Your task to perform on an android device: Search for seafood restaurants on Google Maps Image 0: 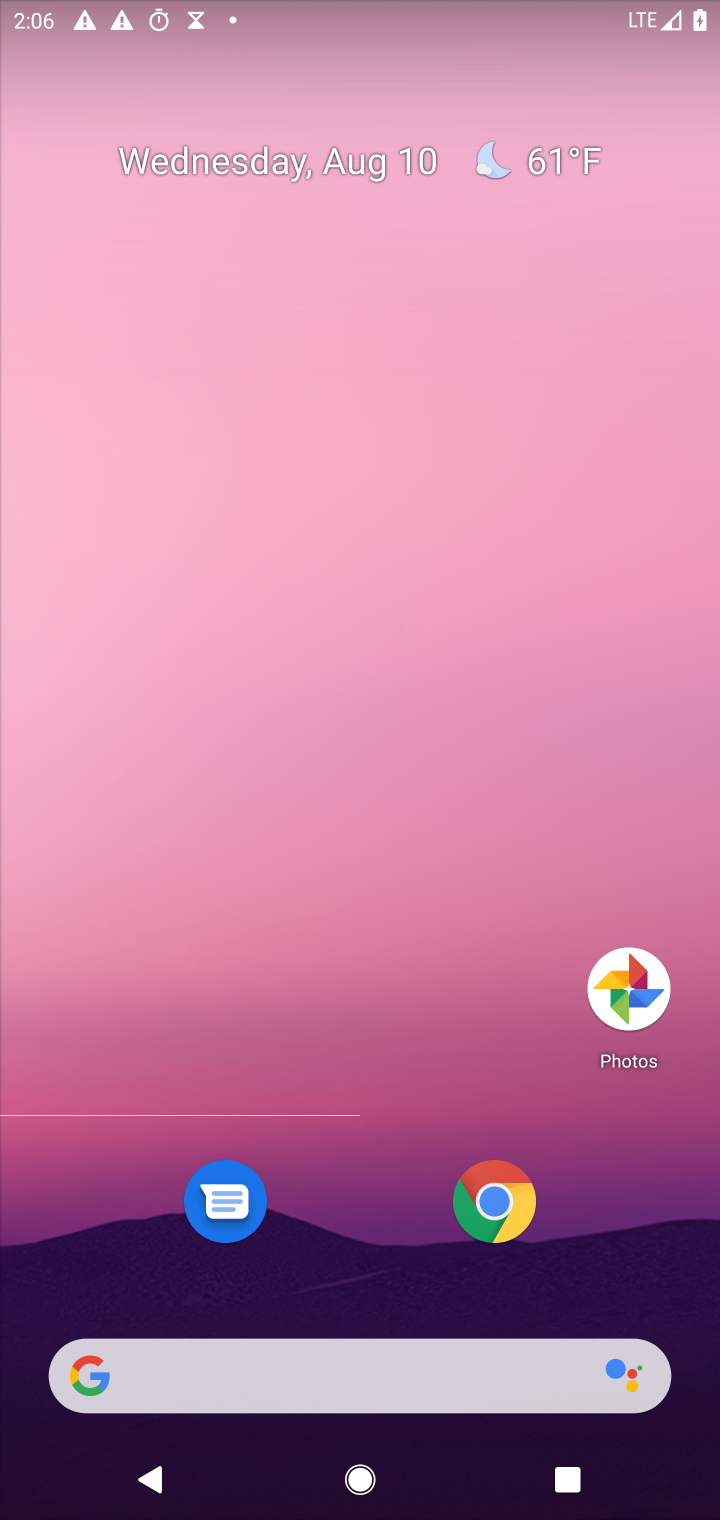
Step 0: press home button
Your task to perform on an android device: Search for seafood restaurants on Google Maps Image 1: 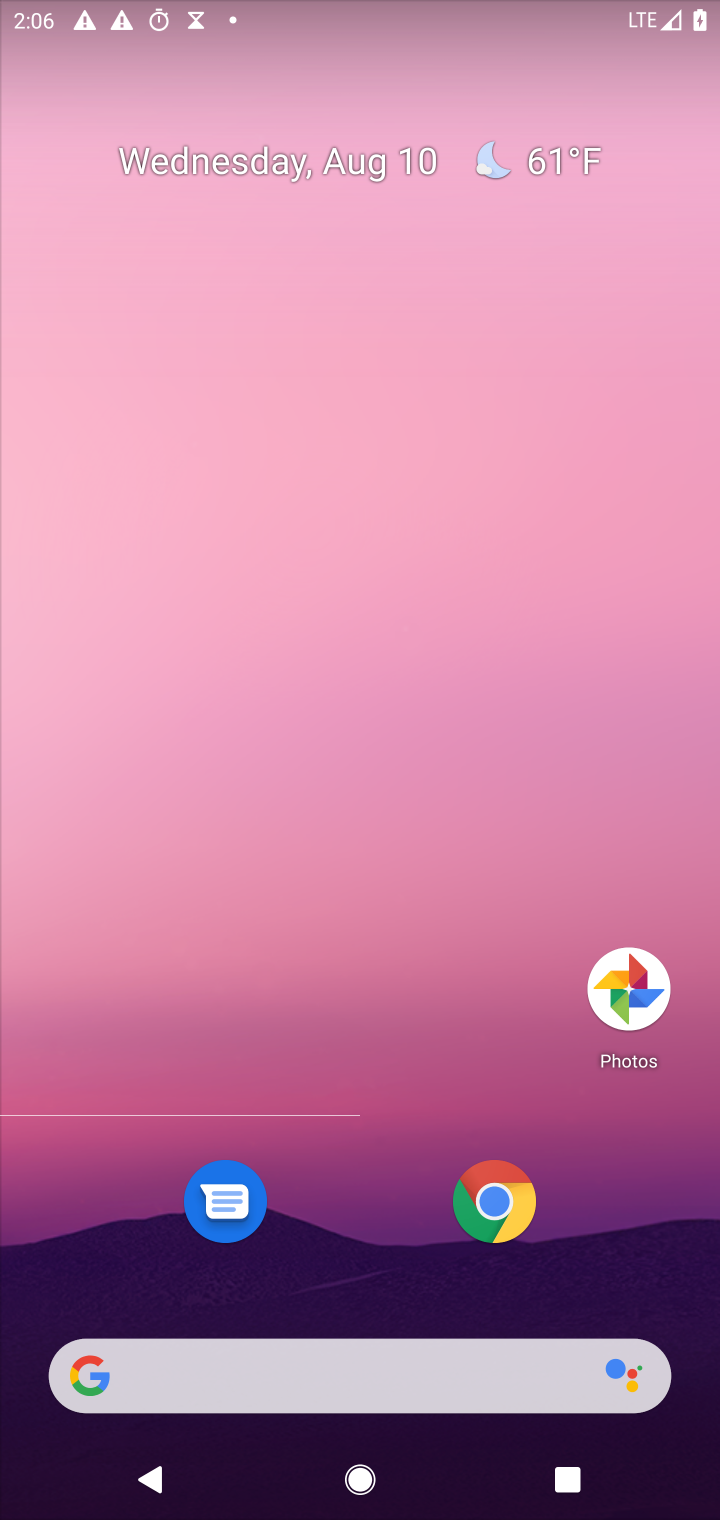
Step 1: drag from (393, 1290) to (498, 102)
Your task to perform on an android device: Search for seafood restaurants on Google Maps Image 2: 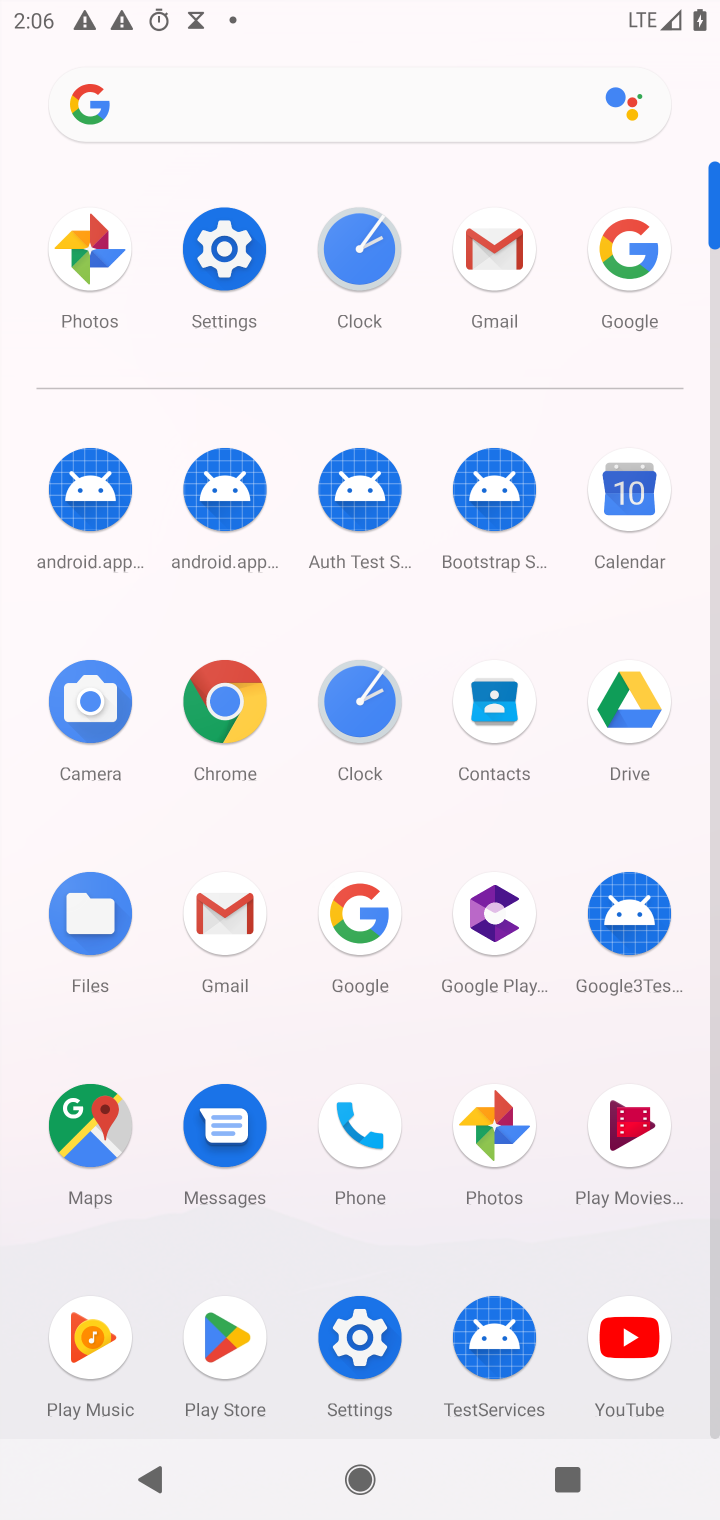
Step 2: click (82, 1127)
Your task to perform on an android device: Search for seafood restaurants on Google Maps Image 3: 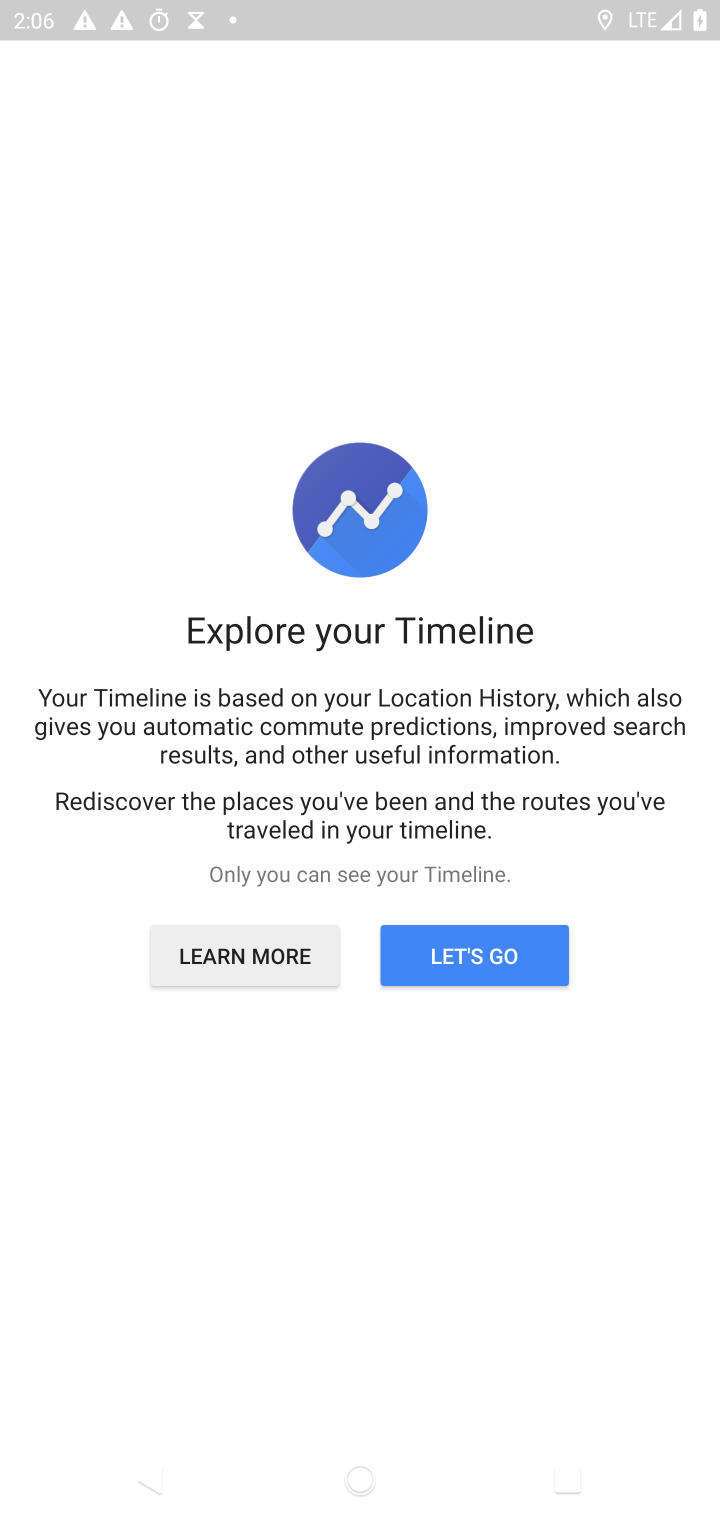
Step 3: click (455, 955)
Your task to perform on an android device: Search for seafood restaurants on Google Maps Image 4: 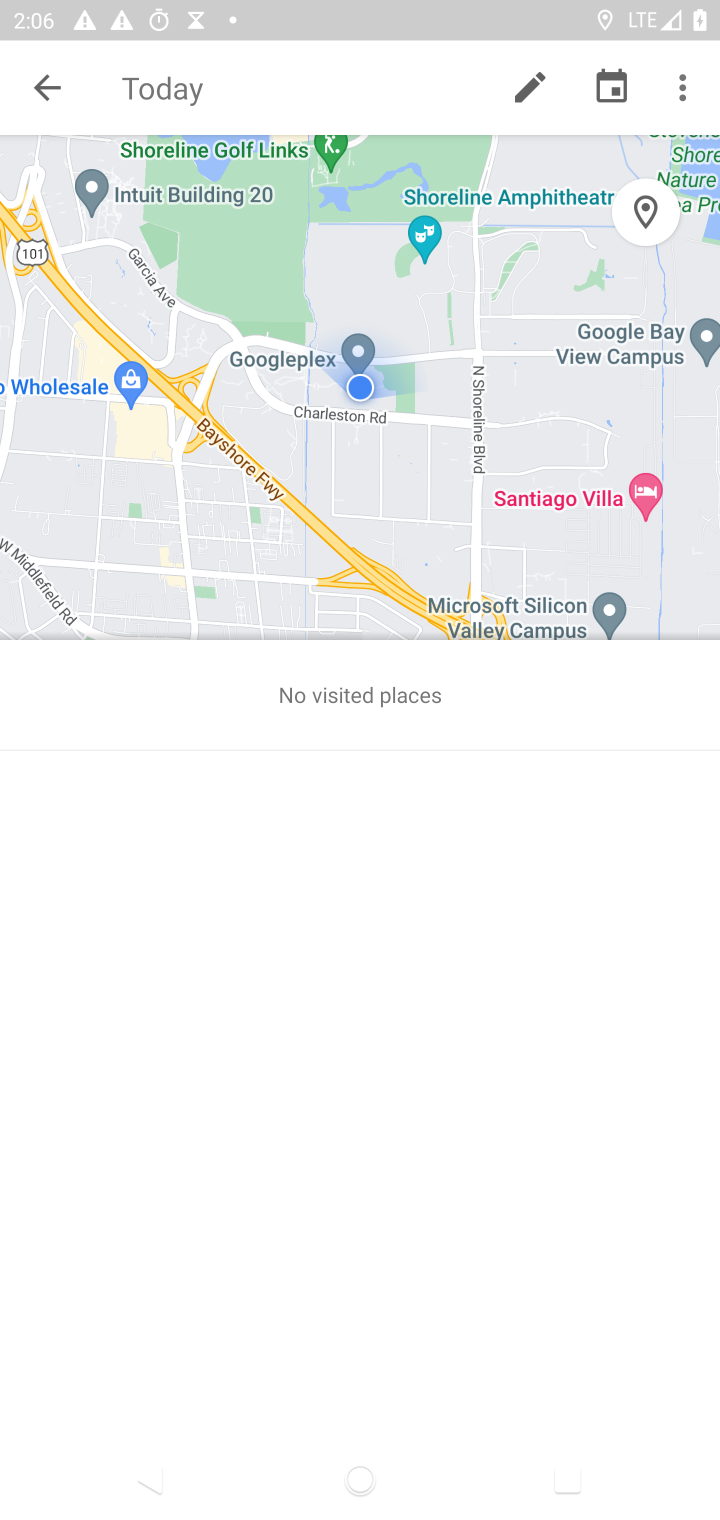
Step 4: click (44, 100)
Your task to perform on an android device: Search for seafood restaurants on Google Maps Image 5: 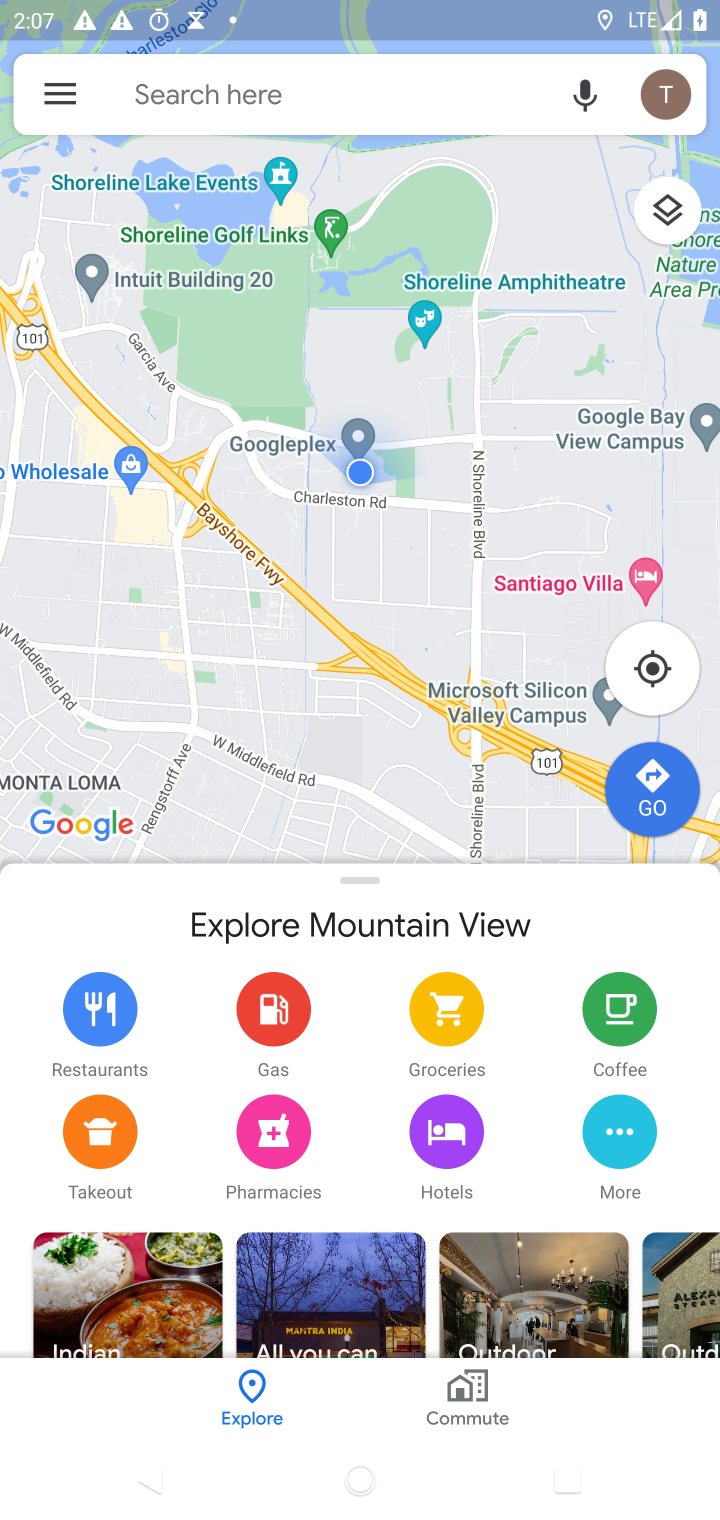
Step 5: click (252, 99)
Your task to perform on an android device: Search for seafood restaurants on Google Maps Image 6: 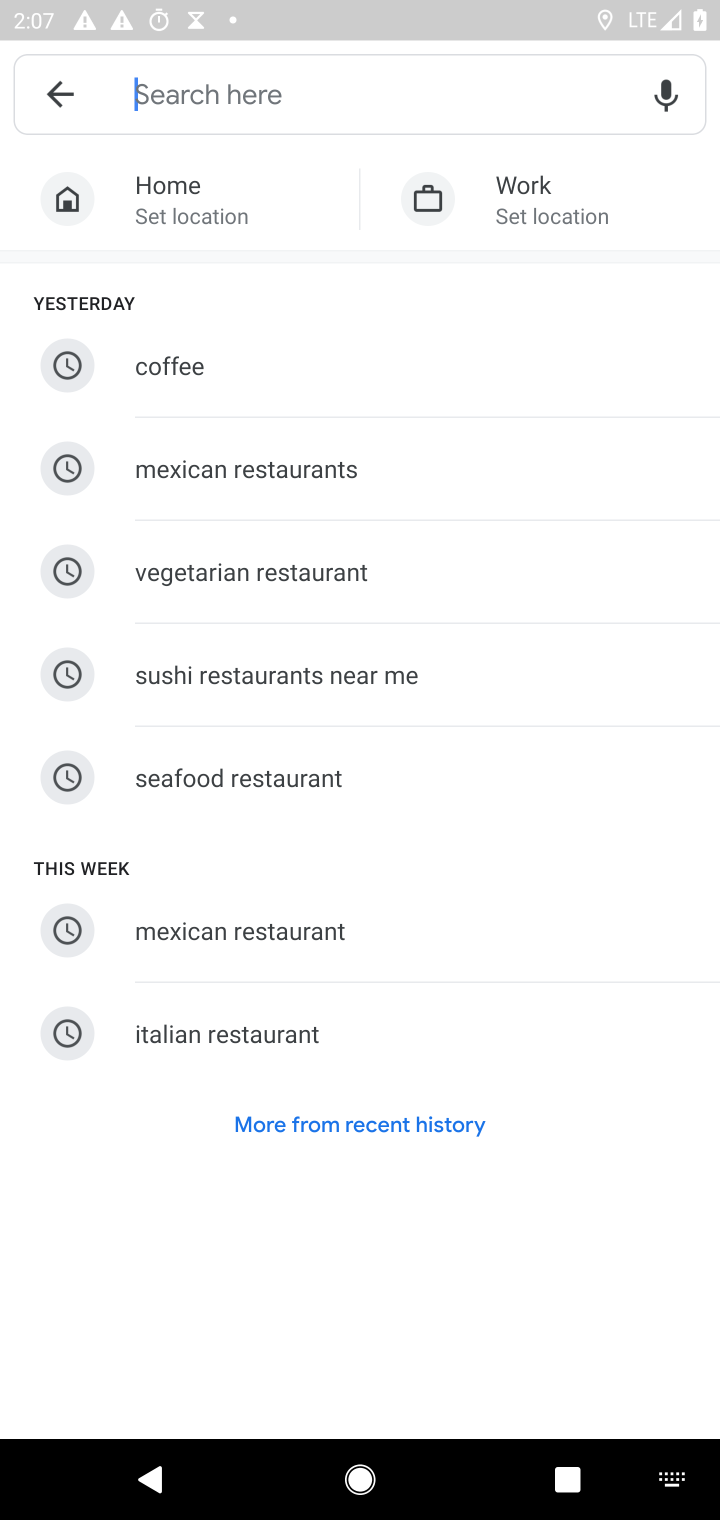
Step 6: click (252, 778)
Your task to perform on an android device: Search for seafood restaurants on Google Maps Image 7: 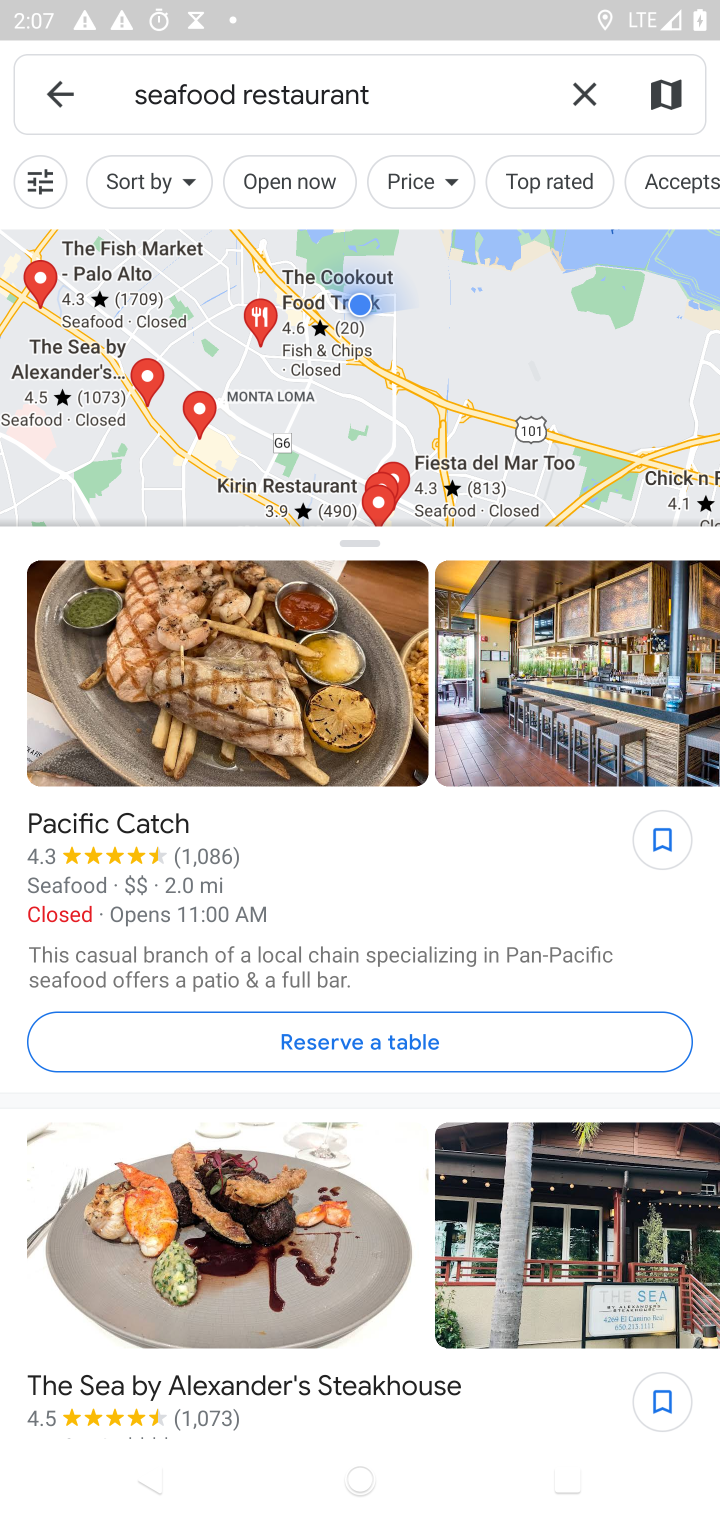
Step 7: task complete